Your task to perform on an android device: Open the map Image 0: 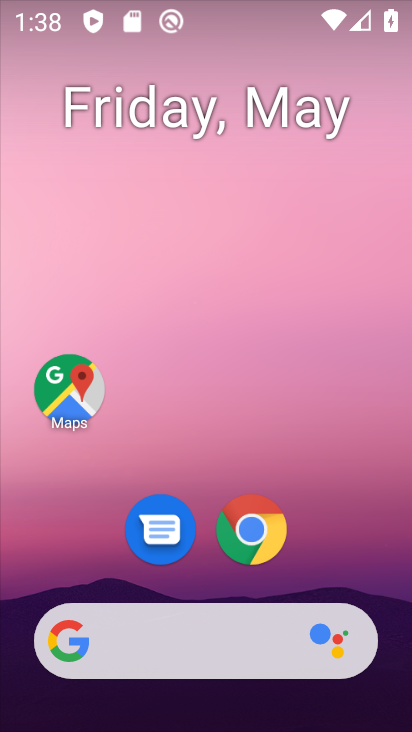
Step 0: click (65, 388)
Your task to perform on an android device: Open the map Image 1: 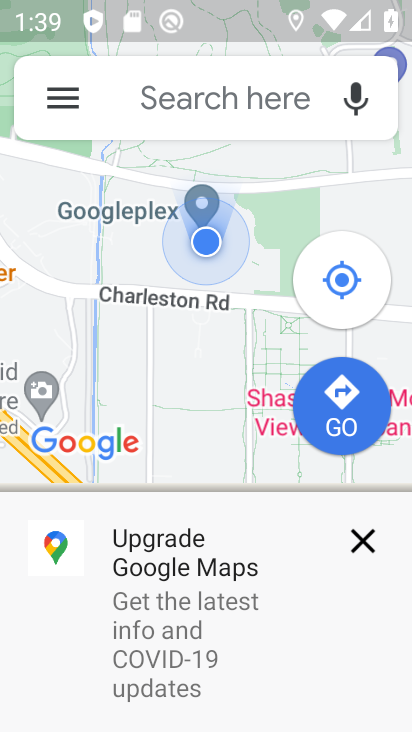
Step 1: task complete